Your task to perform on an android device: install app "Google News" Image 0: 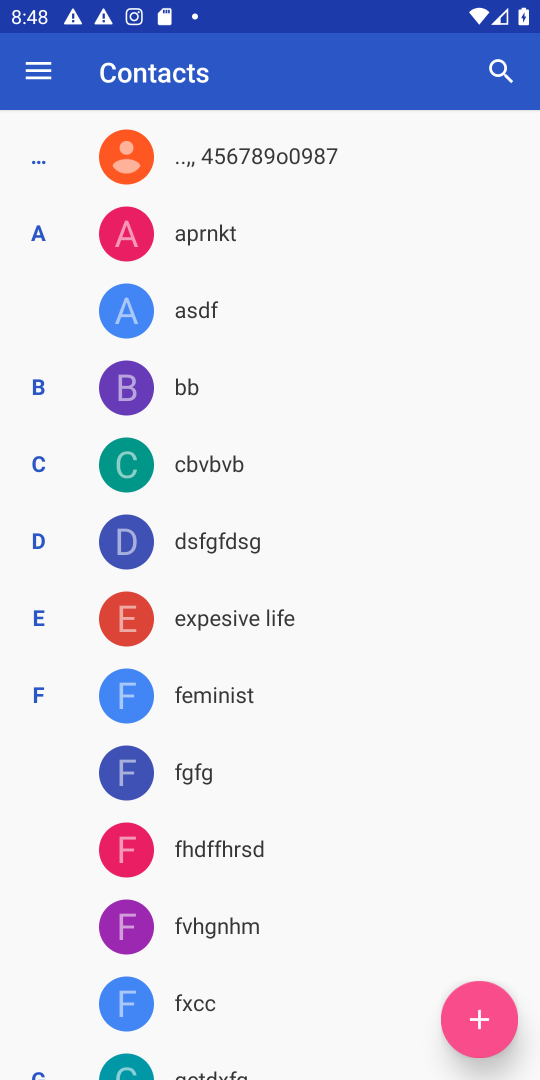
Step 0: press home button
Your task to perform on an android device: install app "Google News" Image 1: 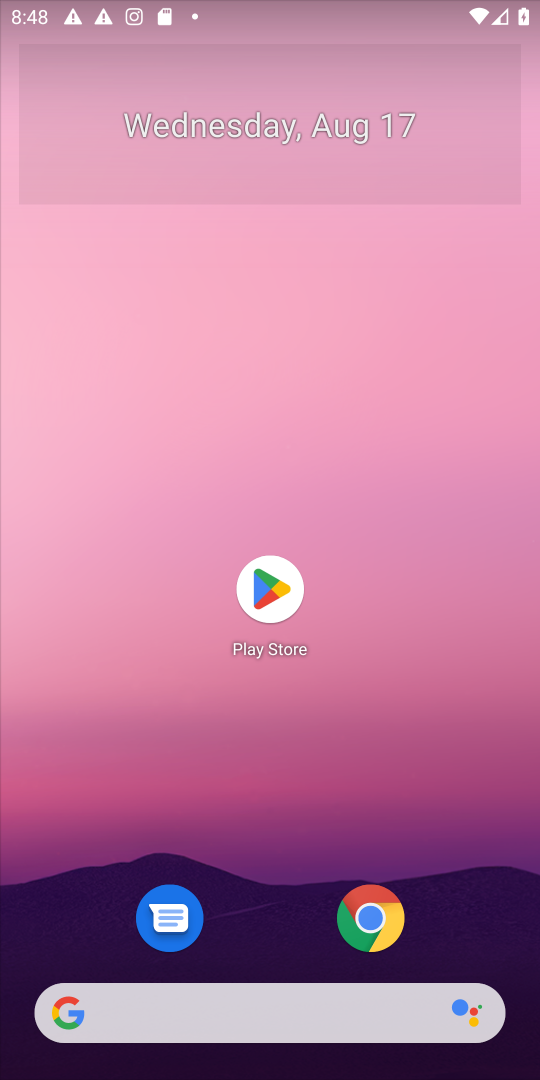
Step 1: click (261, 599)
Your task to perform on an android device: install app "Google News" Image 2: 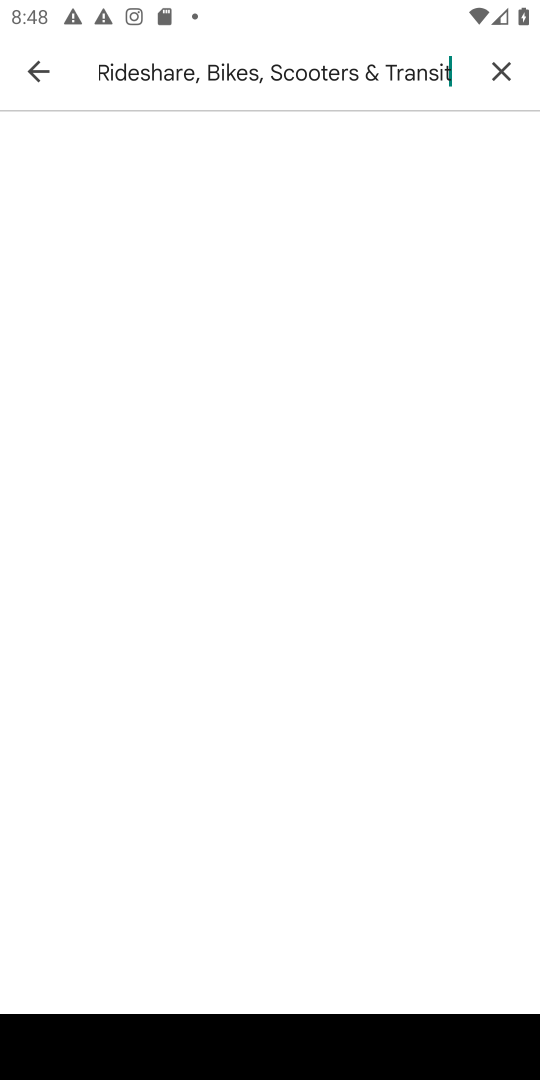
Step 2: click (499, 56)
Your task to perform on an android device: install app "Google News" Image 3: 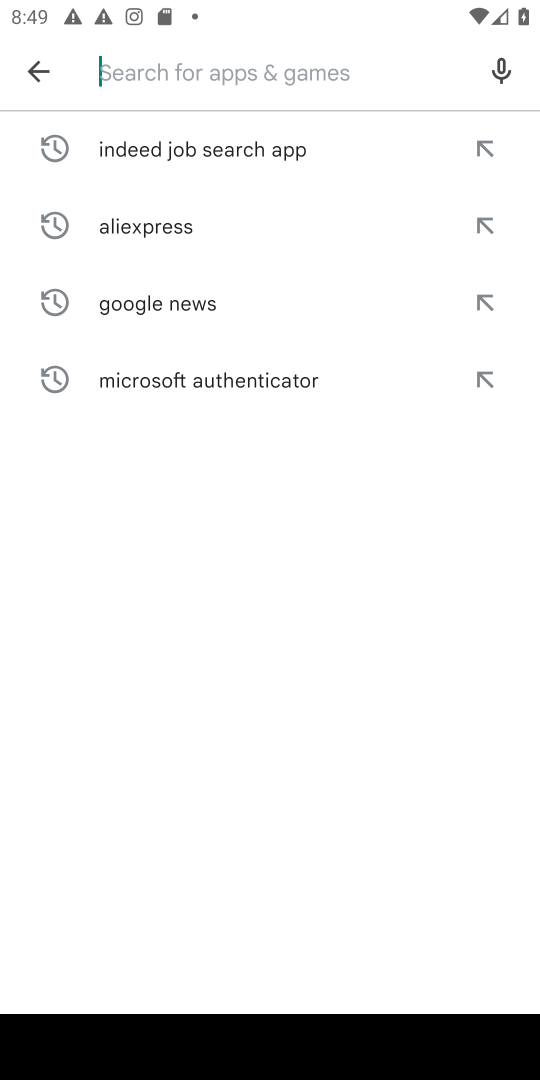
Step 3: click (177, 307)
Your task to perform on an android device: install app "Google News" Image 4: 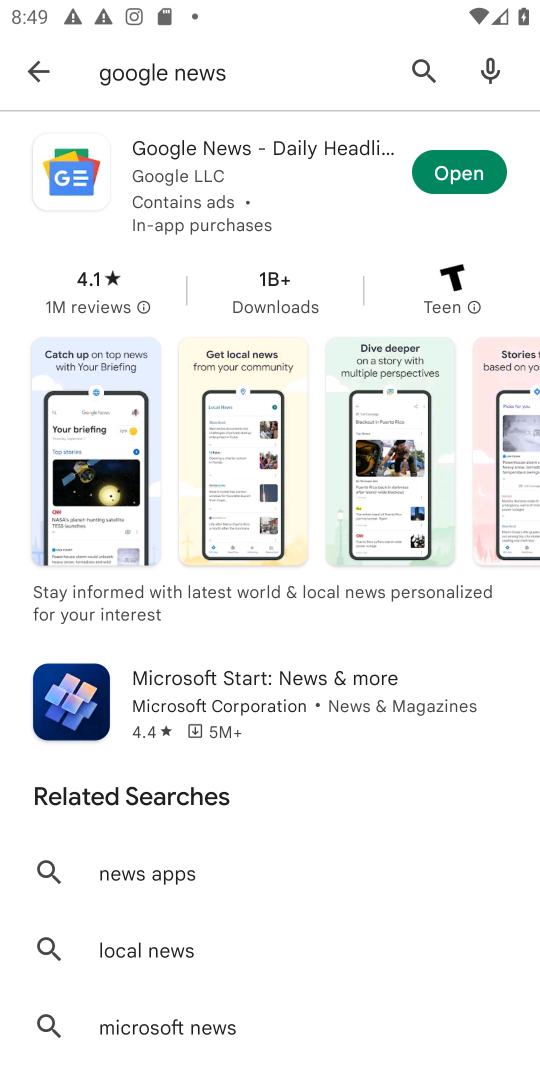
Step 4: task complete